Your task to perform on an android device: open the mobile data screen to see how much data has been used Image 0: 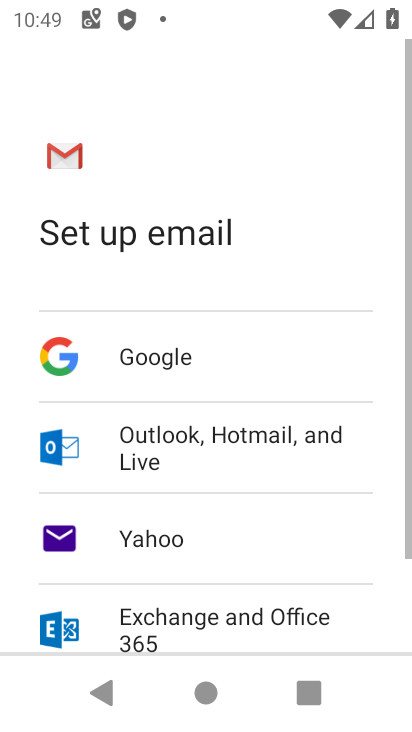
Step 0: press home button
Your task to perform on an android device: open the mobile data screen to see how much data has been used Image 1: 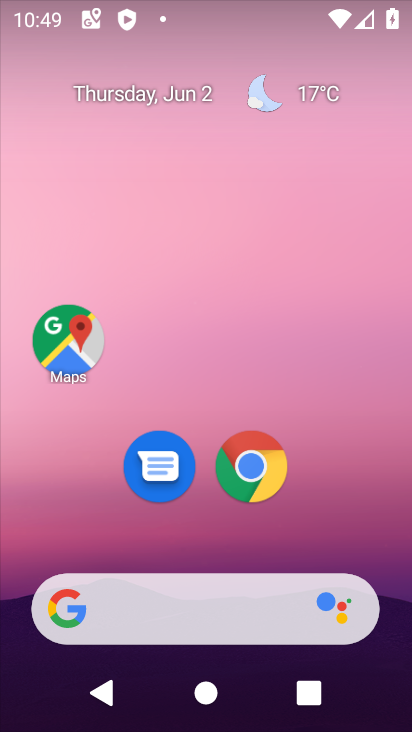
Step 1: drag from (256, 528) to (240, 239)
Your task to perform on an android device: open the mobile data screen to see how much data has been used Image 2: 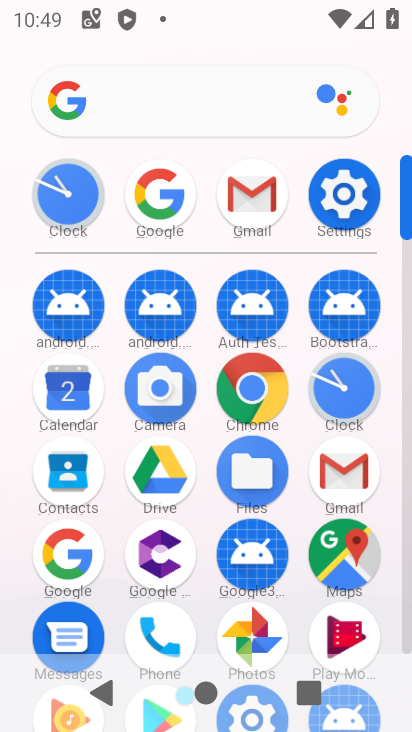
Step 2: click (344, 180)
Your task to perform on an android device: open the mobile data screen to see how much data has been used Image 3: 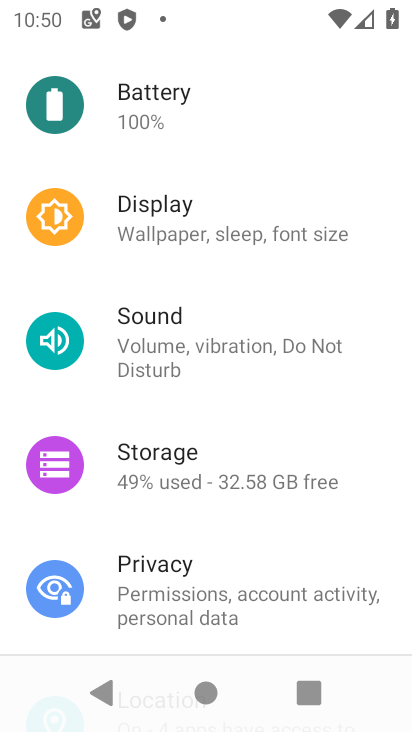
Step 3: drag from (204, 163) to (205, 524)
Your task to perform on an android device: open the mobile data screen to see how much data has been used Image 4: 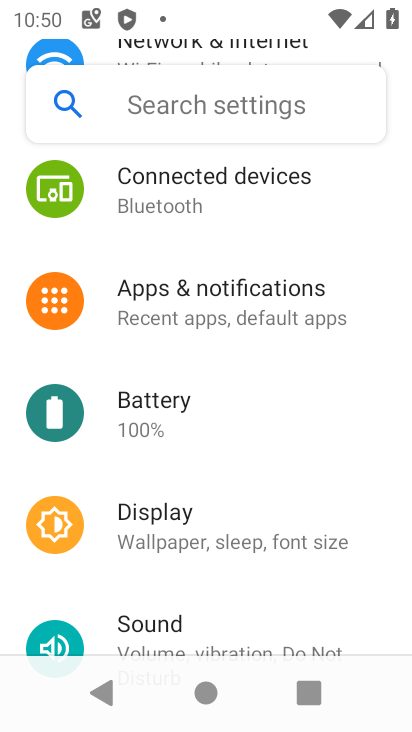
Step 4: drag from (187, 194) to (178, 574)
Your task to perform on an android device: open the mobile data screen to see how much data has been used Image 5: 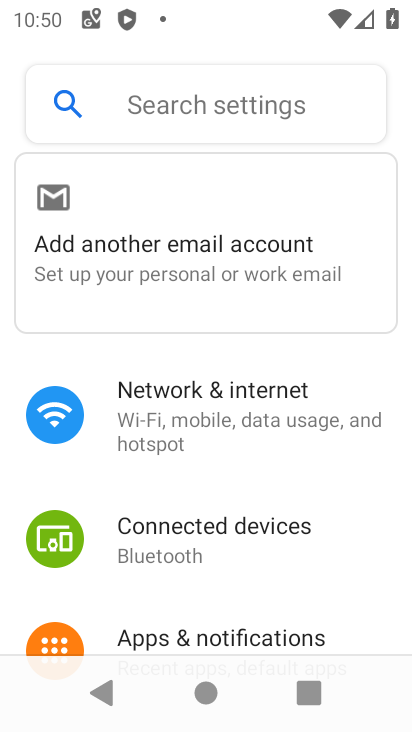
Step 5: click (221, 399)
Your task to perform on an android device: open the mobile data screen to see how much data has been used Image 6: 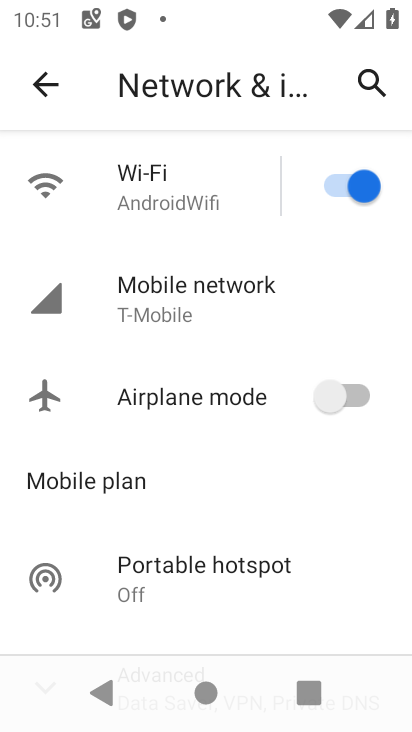
Step 6: click (204, 317)
Your task to perform on an android device: open the mobile data screen to see how much data has been used Image 7: 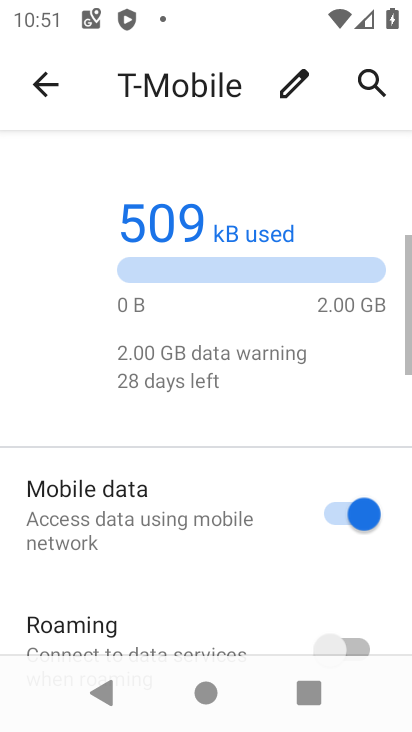
Step 7: task complete